Your task to perform on an android device: Open the web browser Image 0: 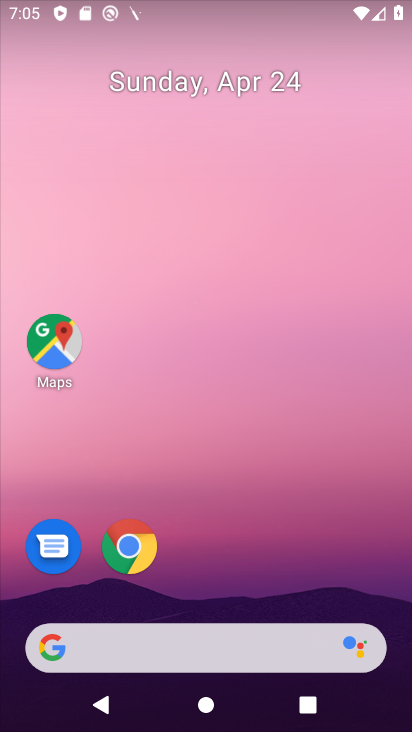
Step 0: press home button
Your task to perform on an android device: Open the web browser Image 1: 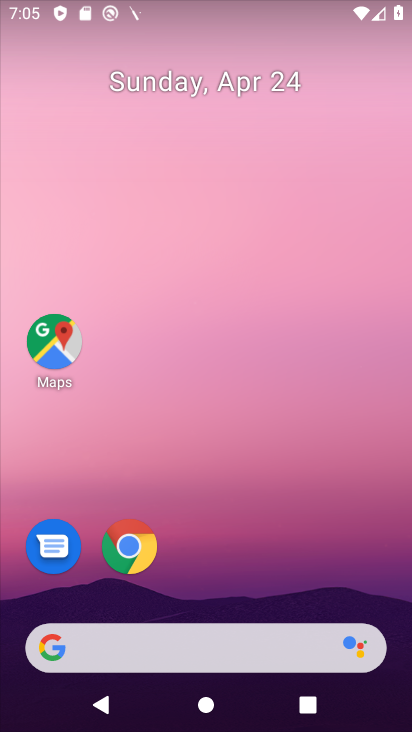
Step 1: click (132, 546)
Your task to perform on an android device: Open the web browser Image 2: 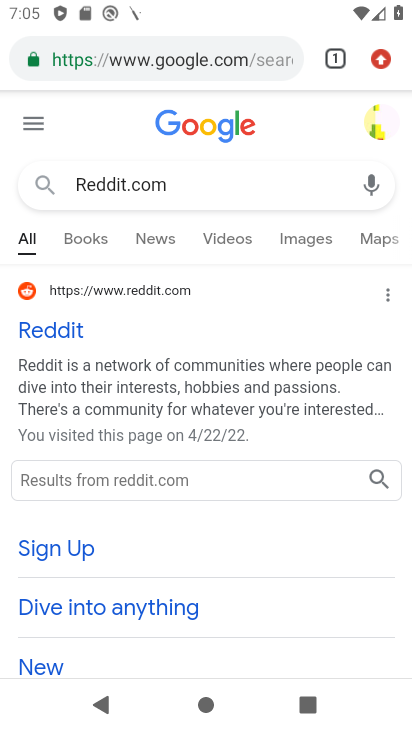
Step 2: task complete